Your task to perform on an android device: toggle airplane mode Image 0: 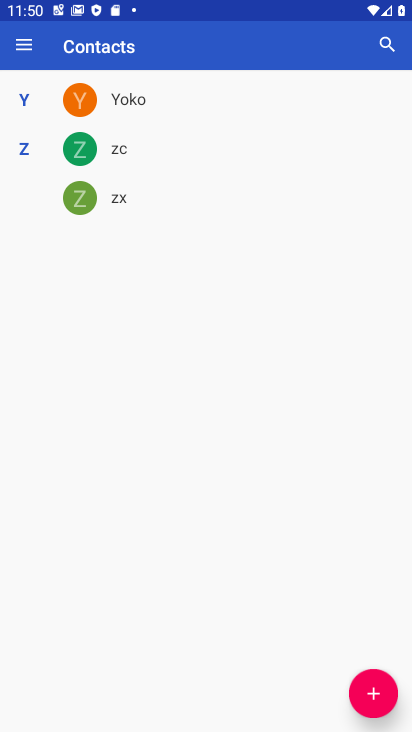
Step 0: press home button
Your task to perform on an android device: toggle airplane mode Image 1: 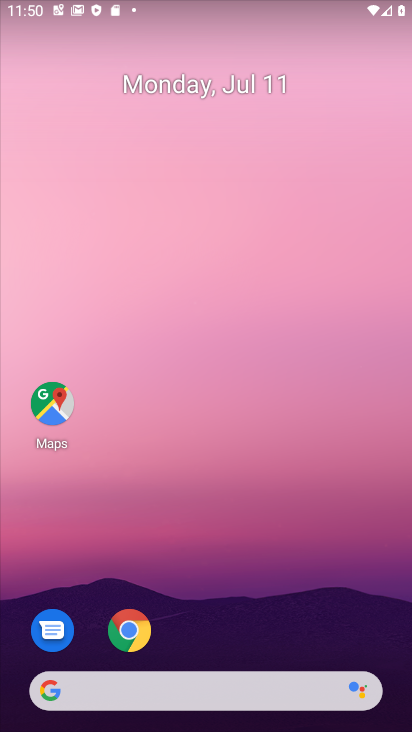
Step 1: drag from (247, 644) to (307, 242)
Your task to perform on an android device: toggle airplane mode Image 2: 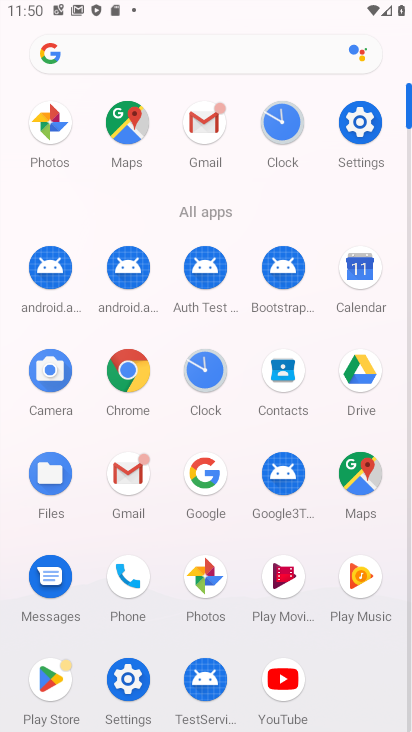
Step 2: click (133, 686)
Your task to perform on an android device: toggle airplane mode Image 3: 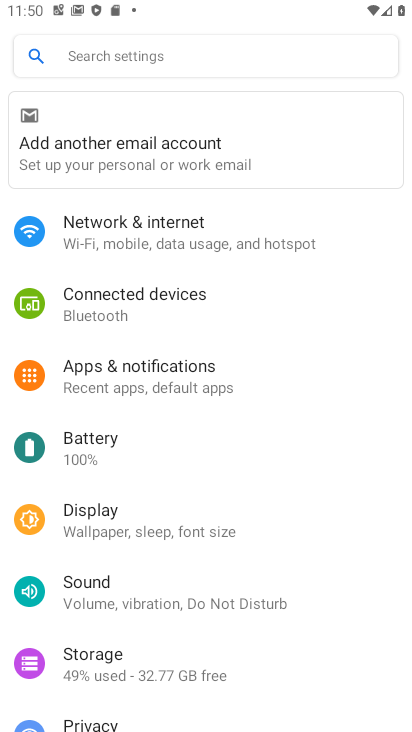
Step 3: click (198, 241)
Your task to perform on an android device: toggle airplane mode Image 4: 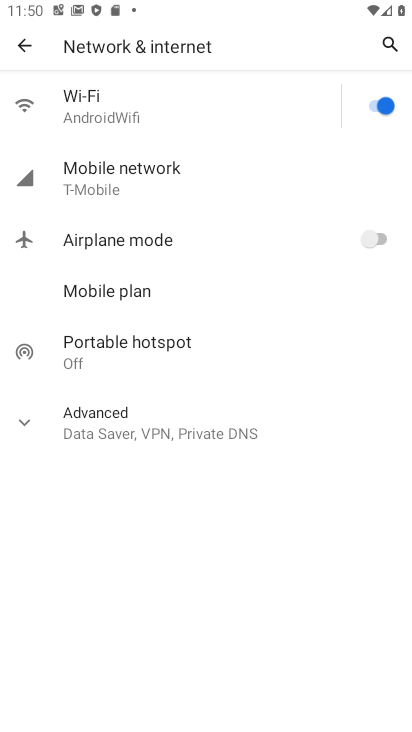
Step 4: click (153, 243)
Your task to perform on an android device: toggle airplane mode Image 5: 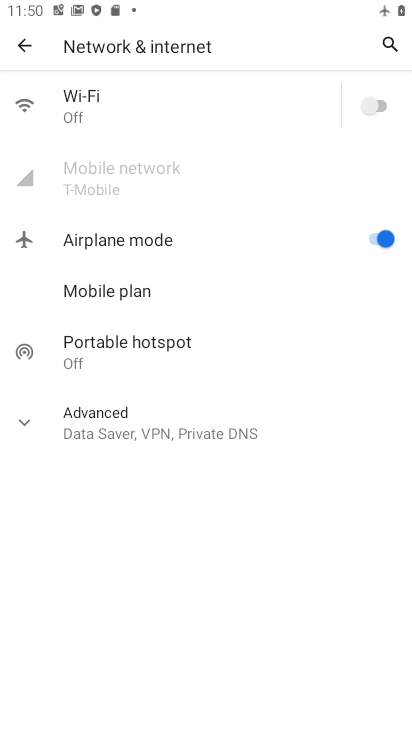
Step 5: task complete